Your task to perform on an android device: change text size in settings app Image 0: 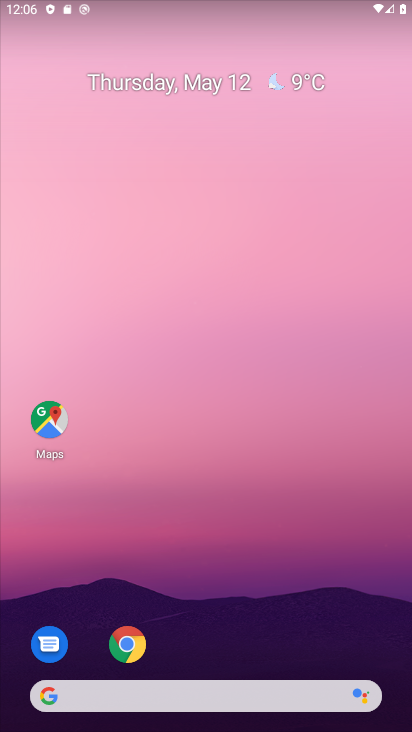
Step 0: drag from (138, 213) to (126, 174)
Your task to perform on an android device: change text size in settings app Image 1: 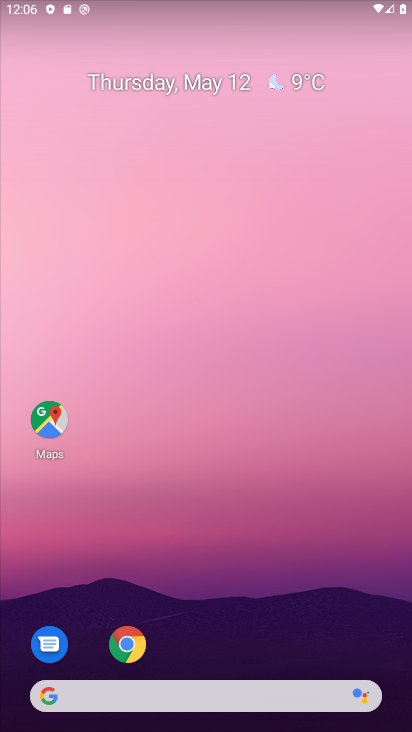
Step 1: drag from (174, 570) to (67, 67)
Your task to perform on an android device: change text size in settings app Image 2: 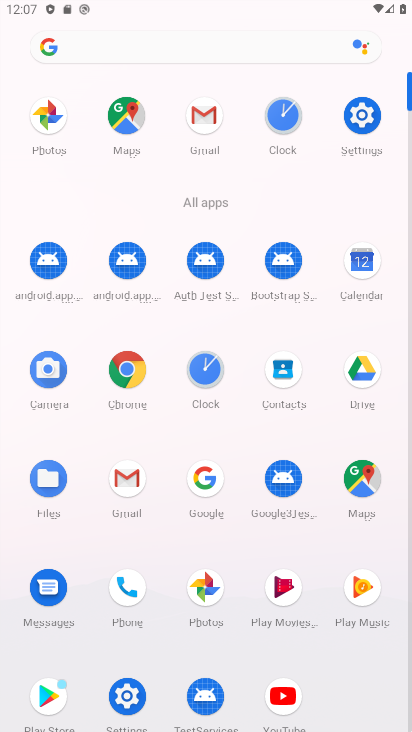
Step 2: click (119, 690)
Your task to perform on an android device: change text size in settings app Image 3: 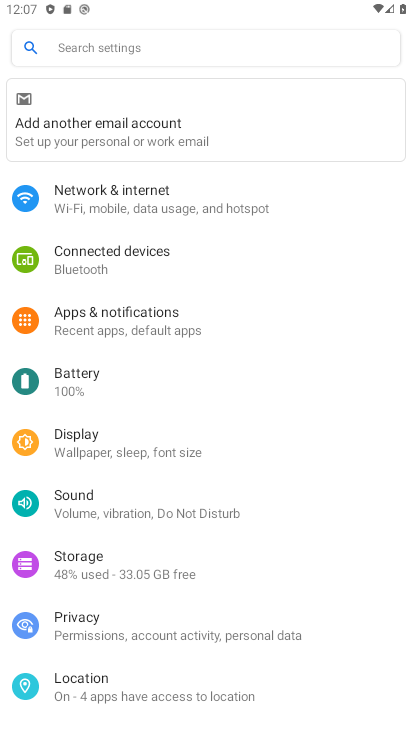
Step 3: click (63, 429)
Your task to perform on an android device: change text size in settings app Image 4: 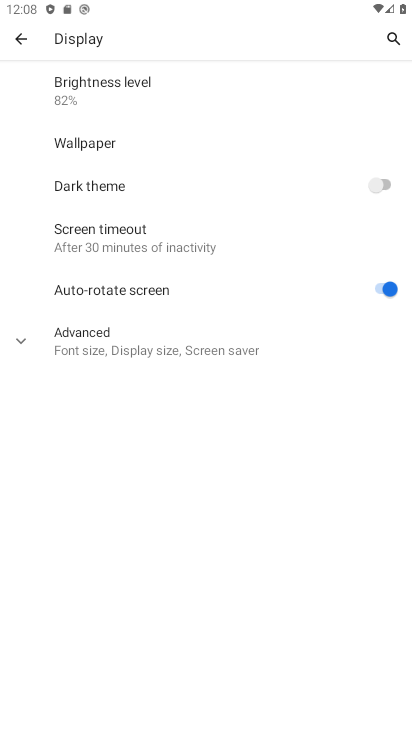
Step 4: click (102, 338)
Your task to perform on an android device: change text size in settings app Image 5: 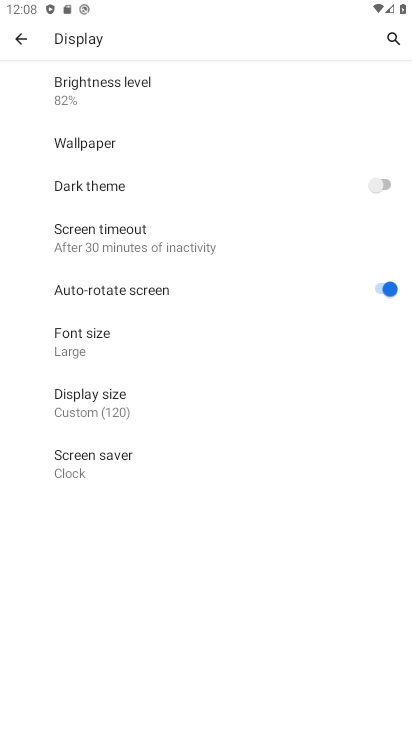
Step 5: click (82, 337)
Your task to perform on an android device: change text size in settings app Image 6: 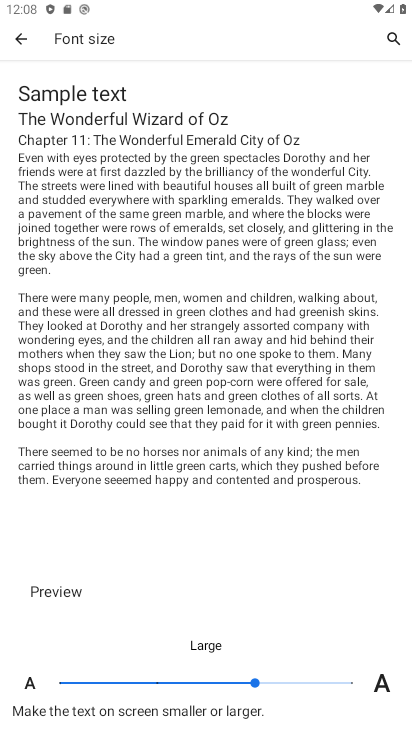
Step 6: click (290, 685)
Your task to perform on an android device: change text size in settings app Image 7: 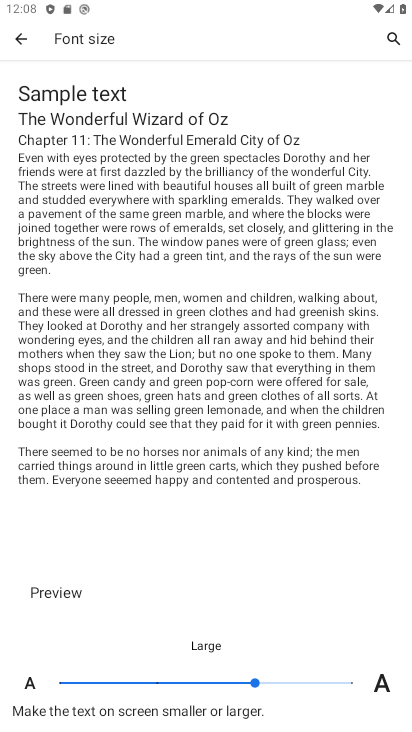
Step 7: click (306, 679)
Your task to perform on an android device: change text size in settings app Image 8: 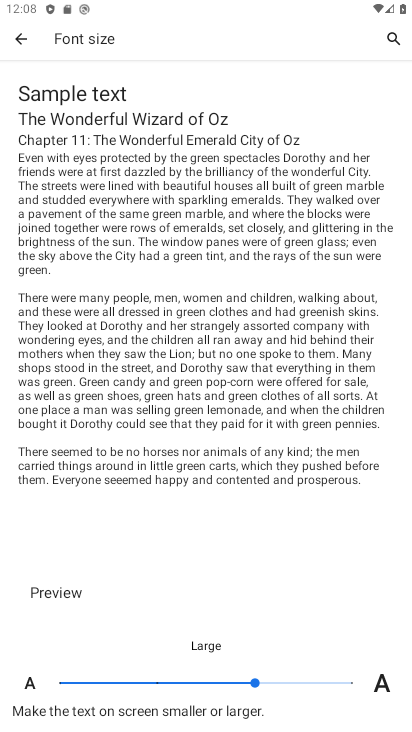
Step 8: click (306, 679)
Your task to perform on an android device: change text size in settings app Image 9: 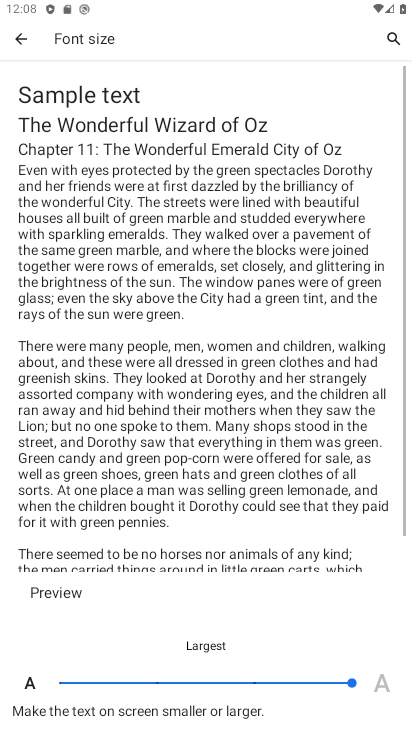
Step 9: click (306, 679)
Your task to perform on an android device: change text size in settings app Image 10: 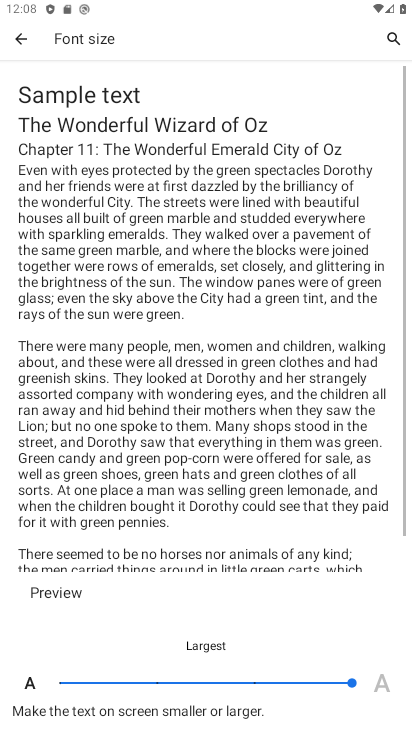
Step 10: click (306, 679)
Your task to perform on an android device: change text size in settings app Image 11: 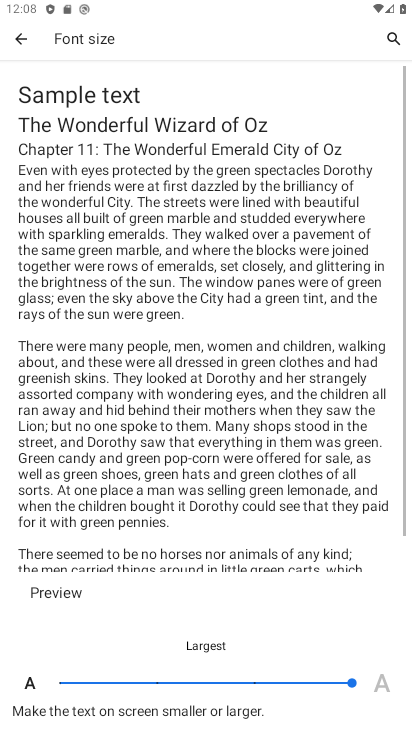
Step 11: click (306, 679)
Your task to perform on an android device: change text size in settings app Image 12: 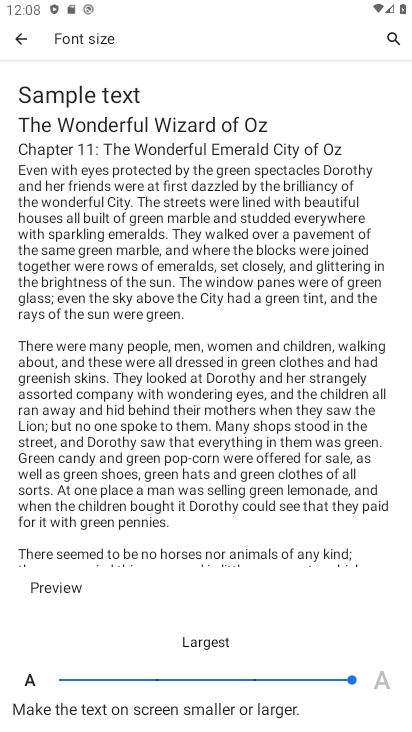
Step 12: task complete